Your task to perform on an android device: Open Google Maps Image 0: 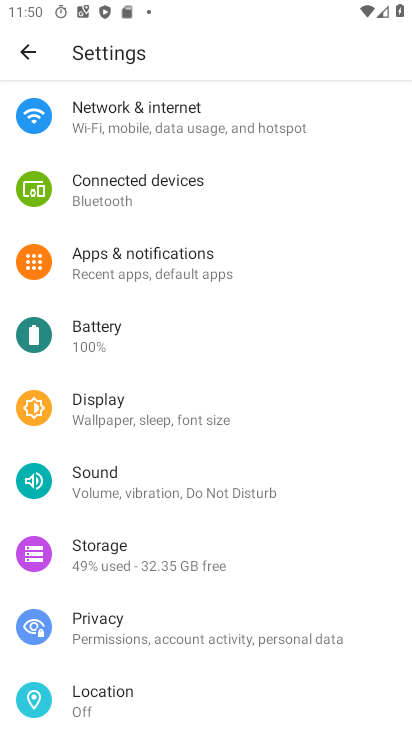
Step 0: press home button
Your task to perform on an android device: Open Google Maps Image 1: 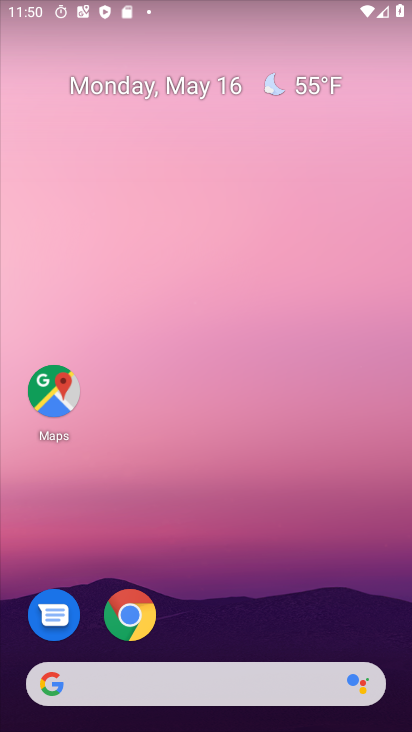
Step 1: click (60, 385)
Your task to perform on an android device: Open Google Maps Image 2: 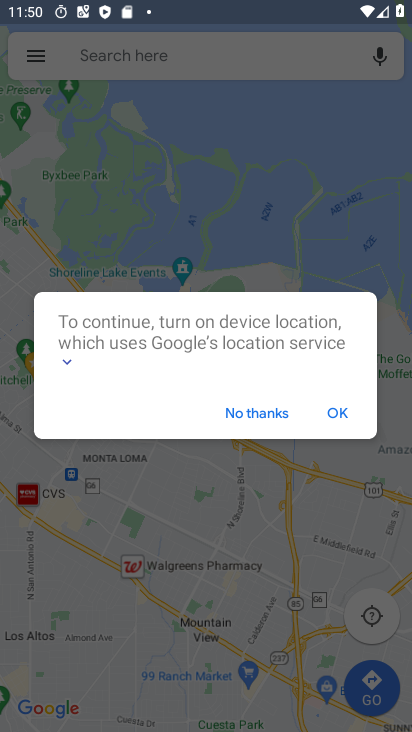
Step 2: click (334, 410)
Your task to perform on an android device: Open Google Maps Image 3: 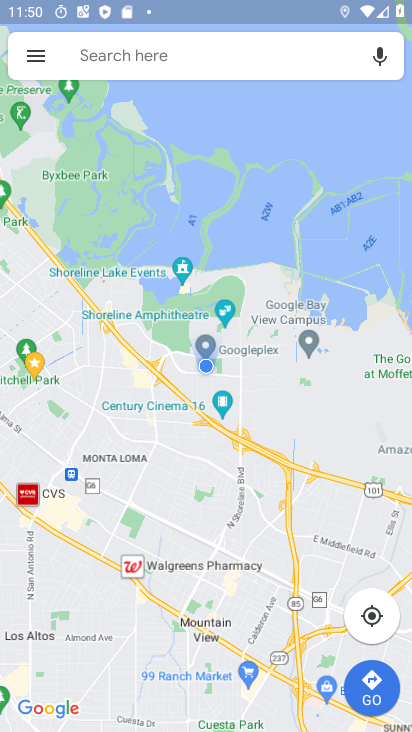
Step 3: task complete